Your task to perform on an android device: Check the news Image 0: 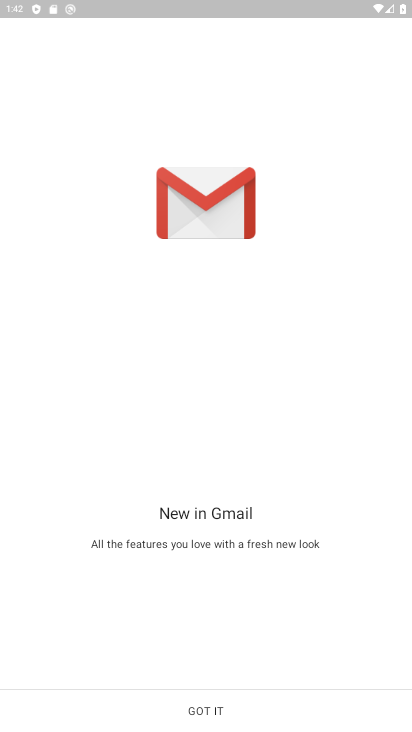
Step 0: drag from (245, 653) to (346, 142)
Your task to perform on an android device: Check the news Image 1: 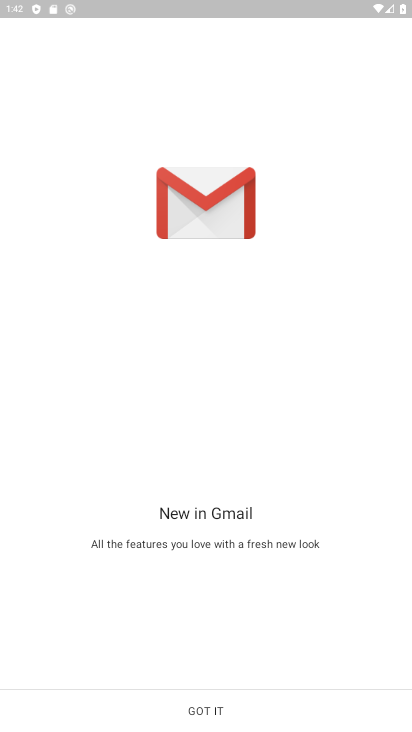
Step 1: task complete